Your task to perform on an android device: Do I have any events tomorrow? Image 0: 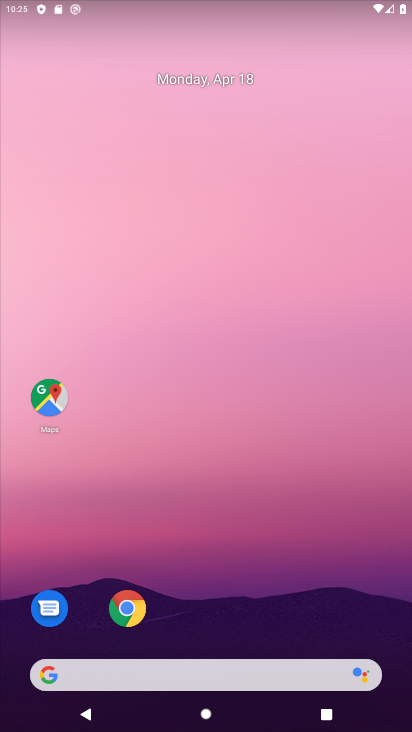
Step 0: drag from (336, 631) to (313, 275)
Your task to perform on an android device: Do I have any events tomorrow? Image 1: 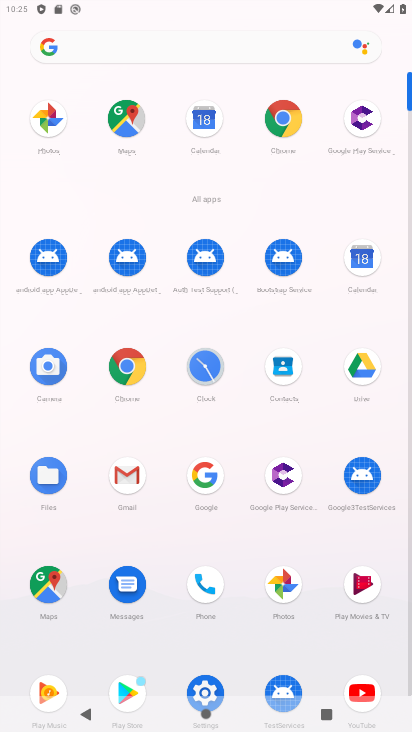
Step 1: click (358, 263)
Your task to perform on an android device: Do I have any events tomorrow? Image 2: 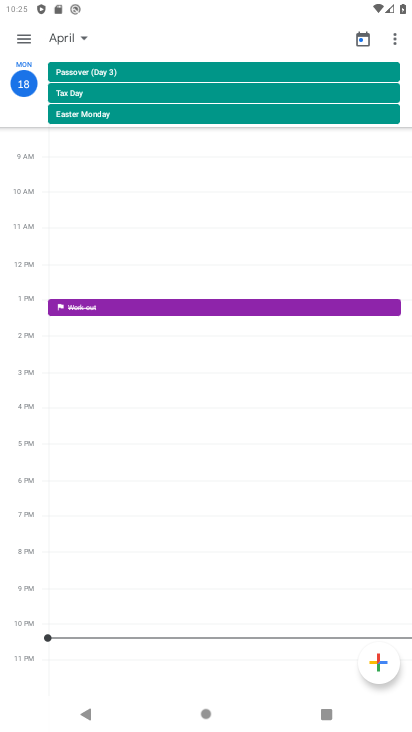
Step 2: click (72, 38)
Your task to perform on an android device: Do I have any events tomorrow? Image 3: 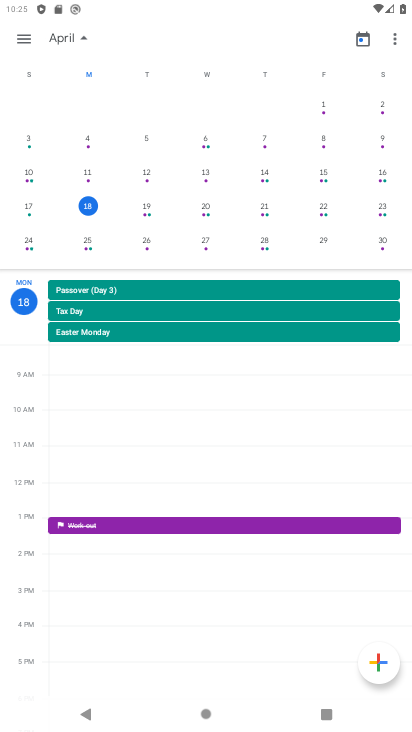
Step 3: click (213, 211)
Your task to perform on an android device: Do I have any events tomorrow? Image 4: 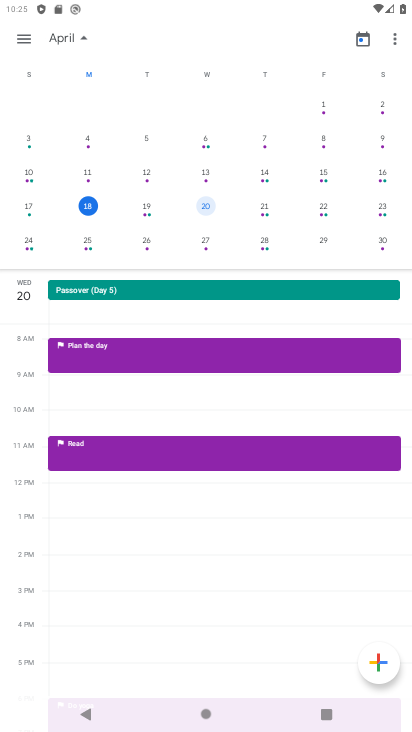
Step 4: click (82, 35)
Your task to perform on an android device: Do I have any events tomorrow? Image 5: 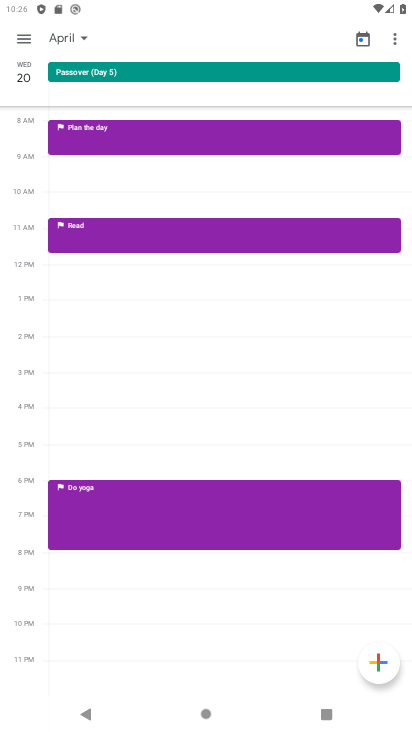
Step 5: task complete